Your task to perform on an android device: turn pop-ups on in chrome Image 0: 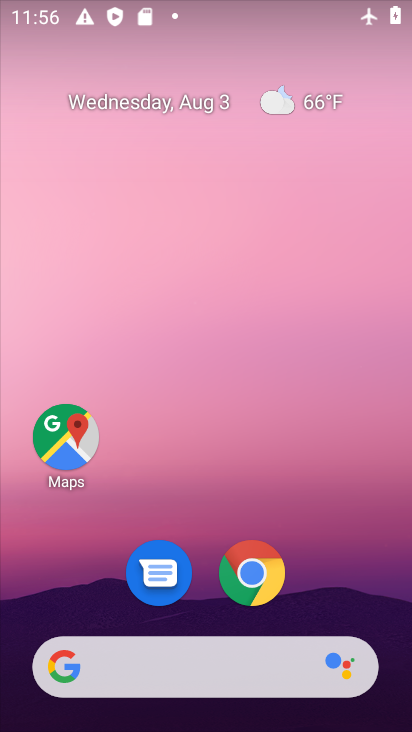
Step 0: drag from (355, 556) to (294, 122)
Your task to perform on an android device: turn pop-ups on in chrome Image 1: 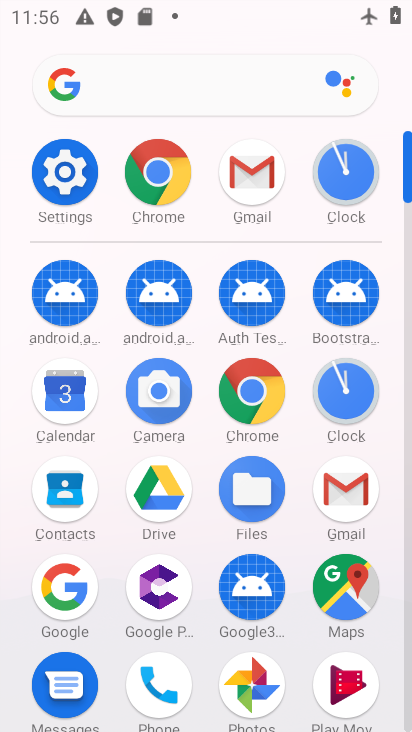
Step 1: click (251, 393)
Your task to perform on an android device: turn pop-ups on in chrome Image 2: 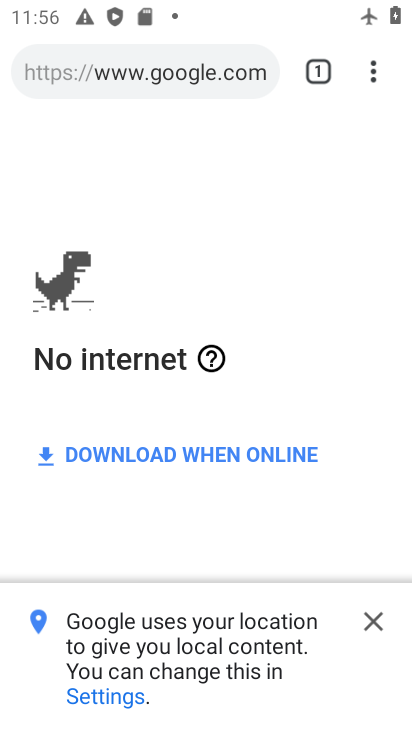
Step 2: drag from (382, 57) to (198, 583)
Your task to perform on an android device: turn pop-ups on in chrome Image 3: 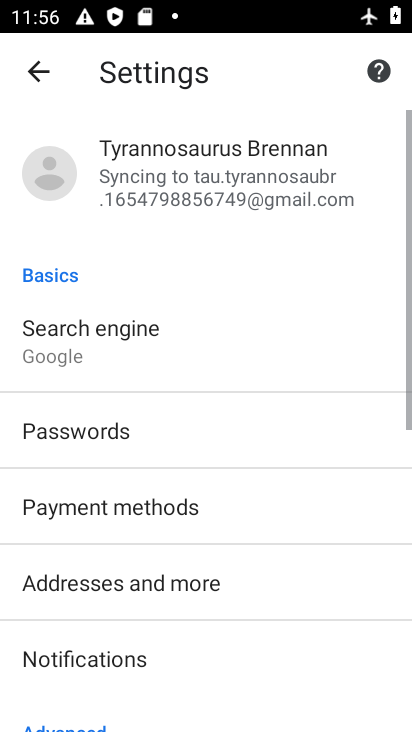
Step 3: drag from (199, 580) to (299, 91)
Your task to perform on an android device: turn pop-ups on in chrome Image 4: 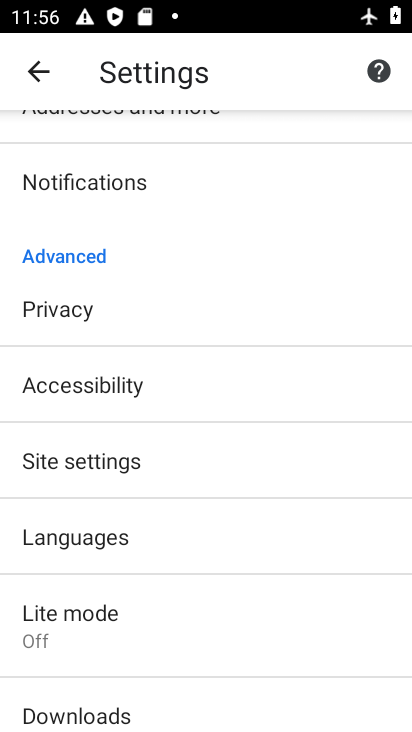
Step 4: click (164, 450)
Your task to perform on an android device: turn pop-ups on in chrome Image 5: 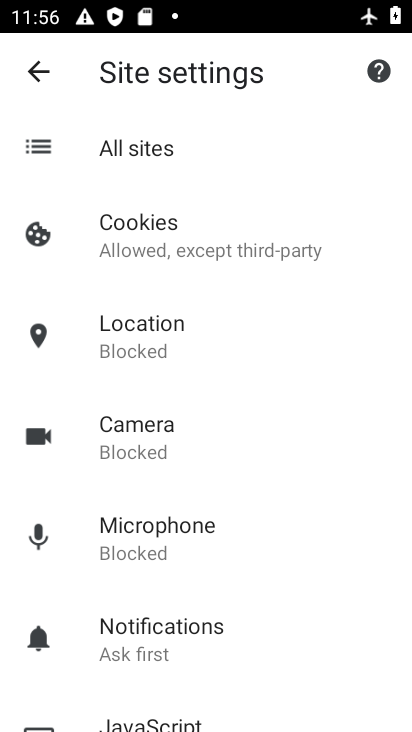
Step 5: drag from (317, 609) to (343, 251)
Your task to perform on an android device: turn pop-ups on in chrome Image 6: 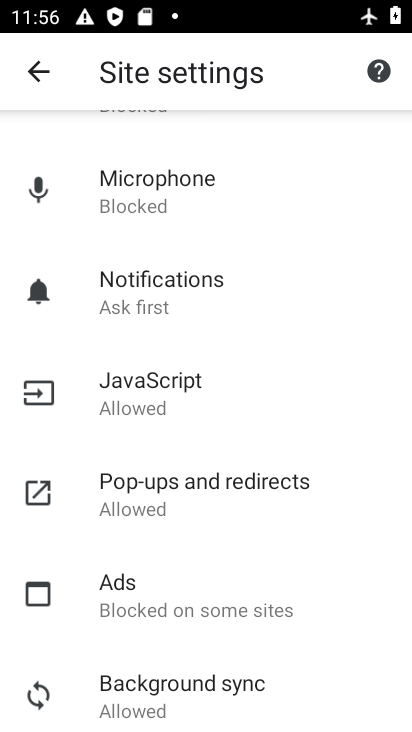
Step 6: click (178, 508)
Your task to perform on an android device: turn pop-ups on in chrome Image 7: 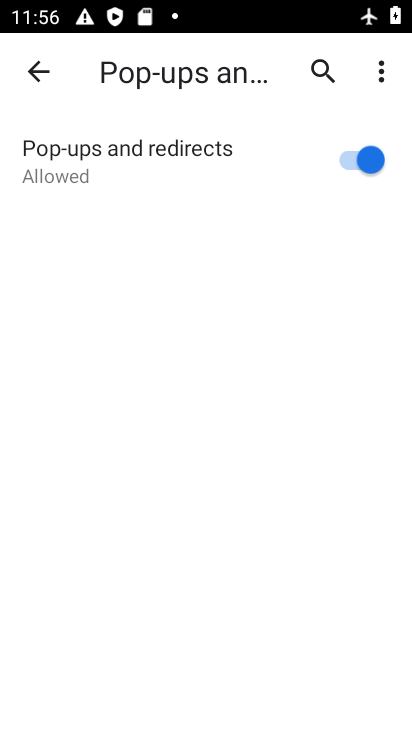
Step 7: task complete